Your task to perform on an android device: Go to Reddit.com Image 0: 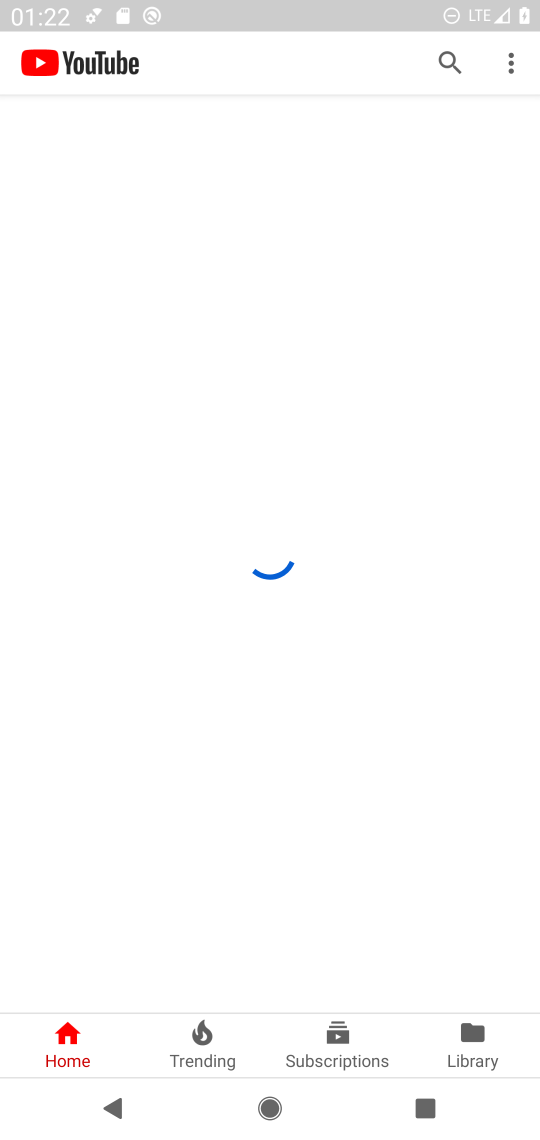
Step 0: press home button
Your task to perform on an android device: Go to Reddit.com Image 1: 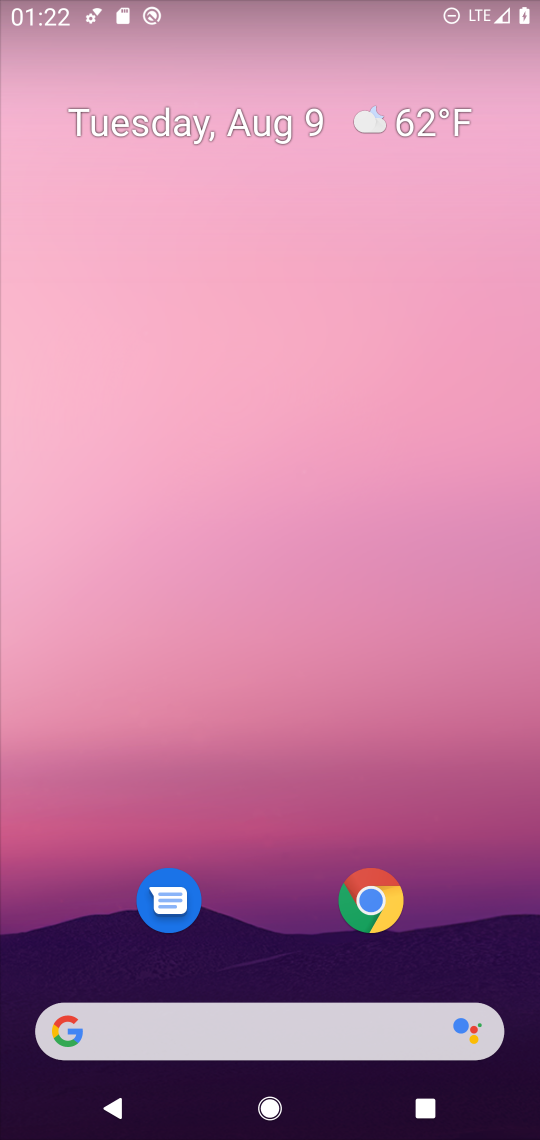
Step 1: press home button
Your task to perform on an android device: Go to Reddit.com Image 2: 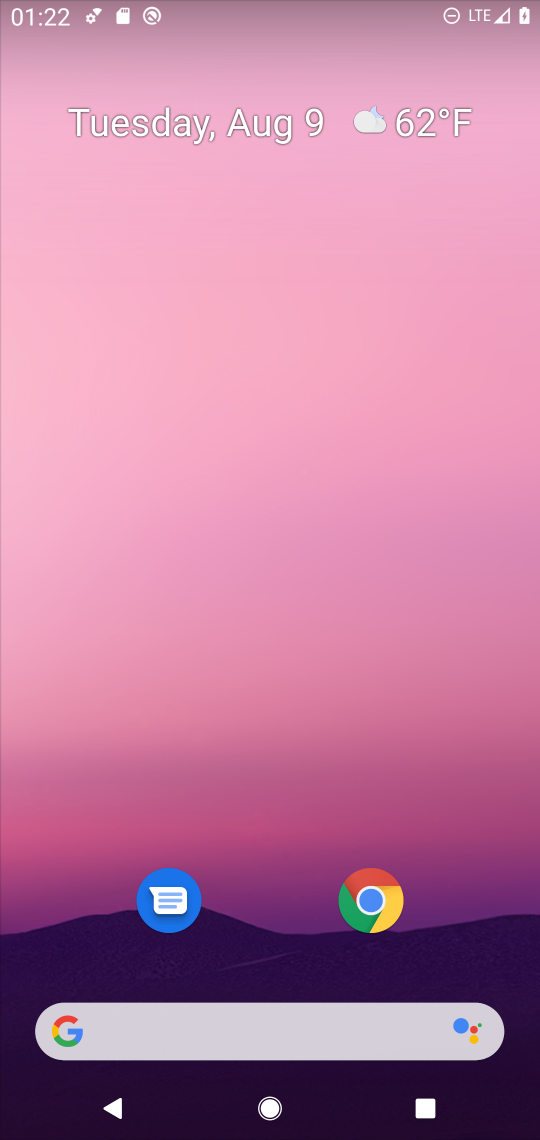
Step 2: drag from (269, 941) to (328, 178)
Your task to perform on an android device: Go to Reddit.com Image 3: 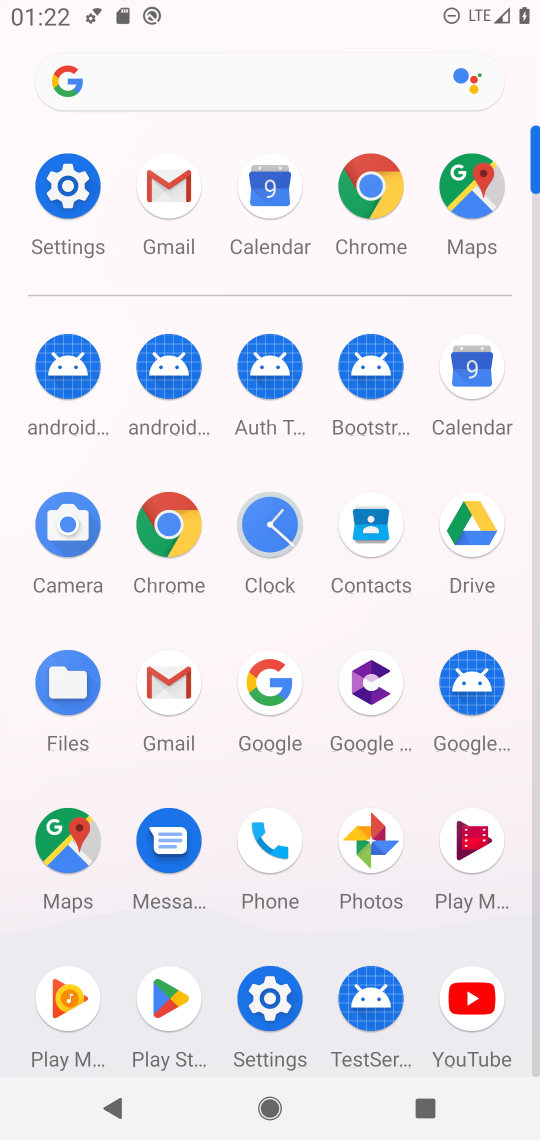
Step 3: click (162, 519)
Your task to perform on an android device: Go to Reddit.com Image 4: 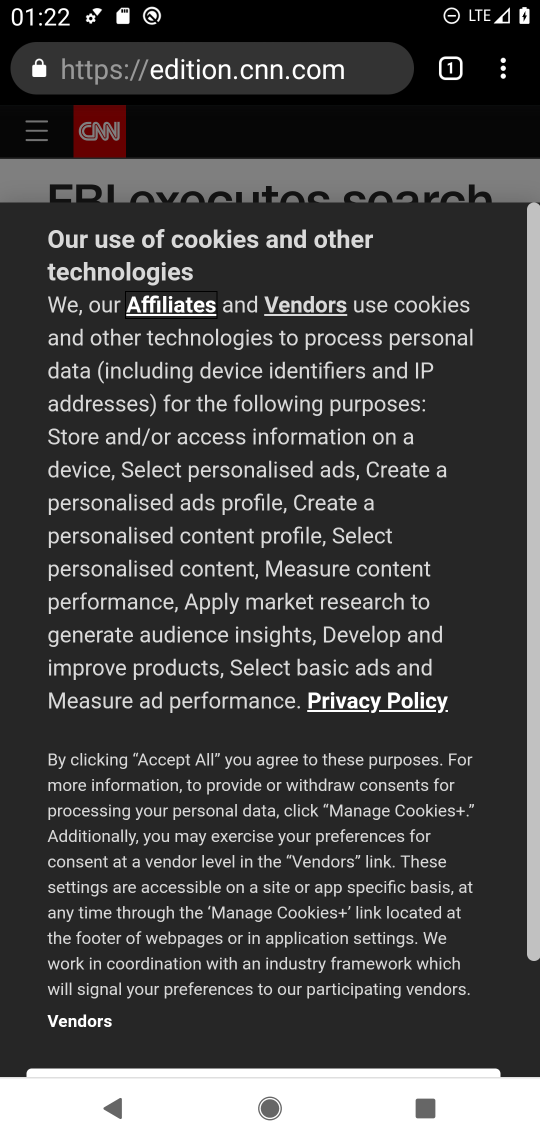
Step 4: click (339, 70)
Your task to perform on an android device: Go to Reddit.com Image 5: 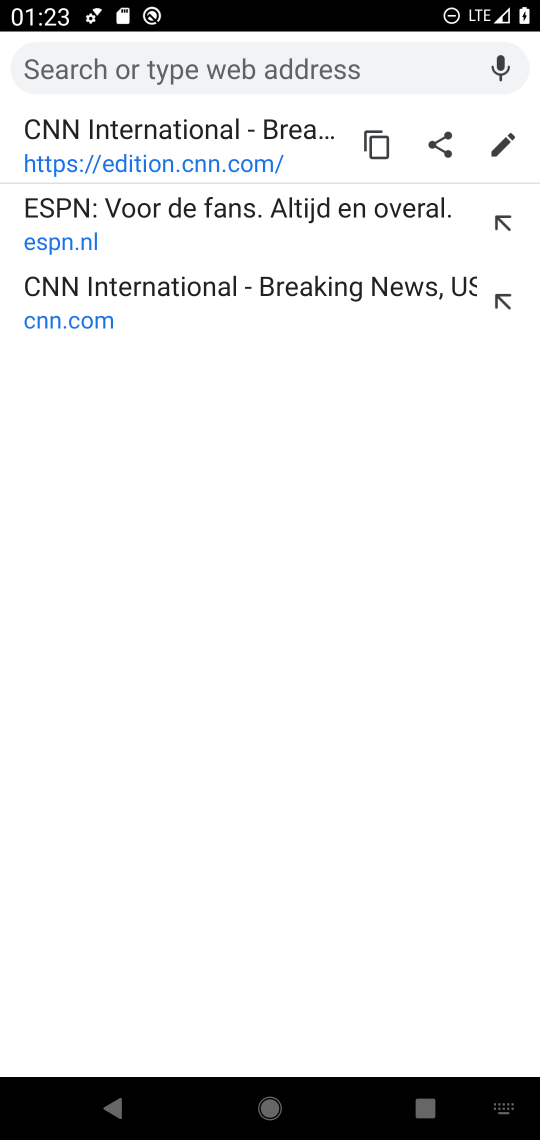
Step 5: type "reddit.com"
Your task to perform on an android device: Go to Reddit.com Image 6: 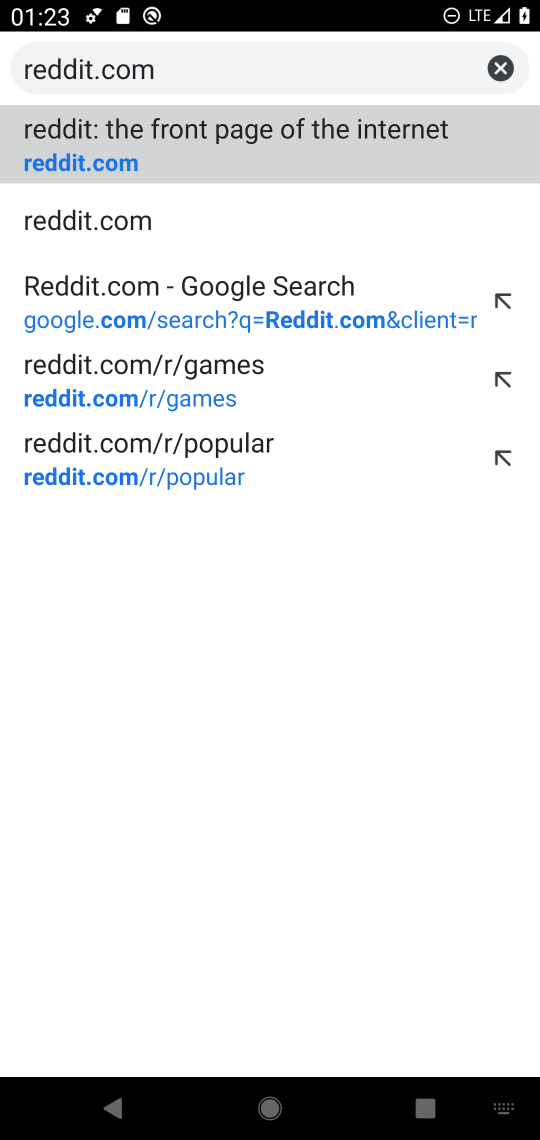
Step 6: click (239, 167)
Your task to perform on an android device: Go to Reddit.com Image 7: 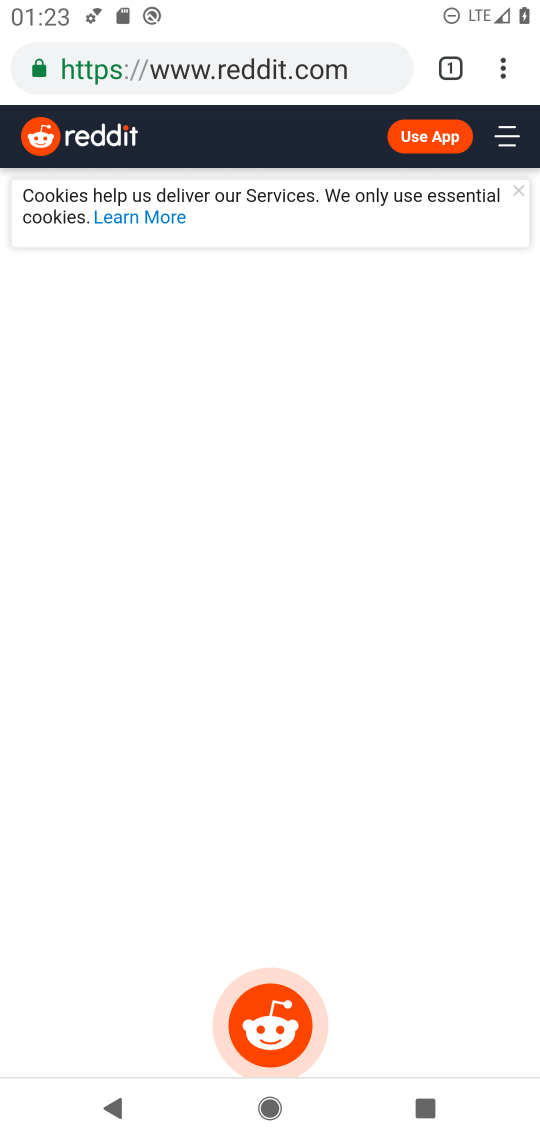
Step 7: task complete